Your task to perform on an android device: move a message to another label in the gmail app Image 0: 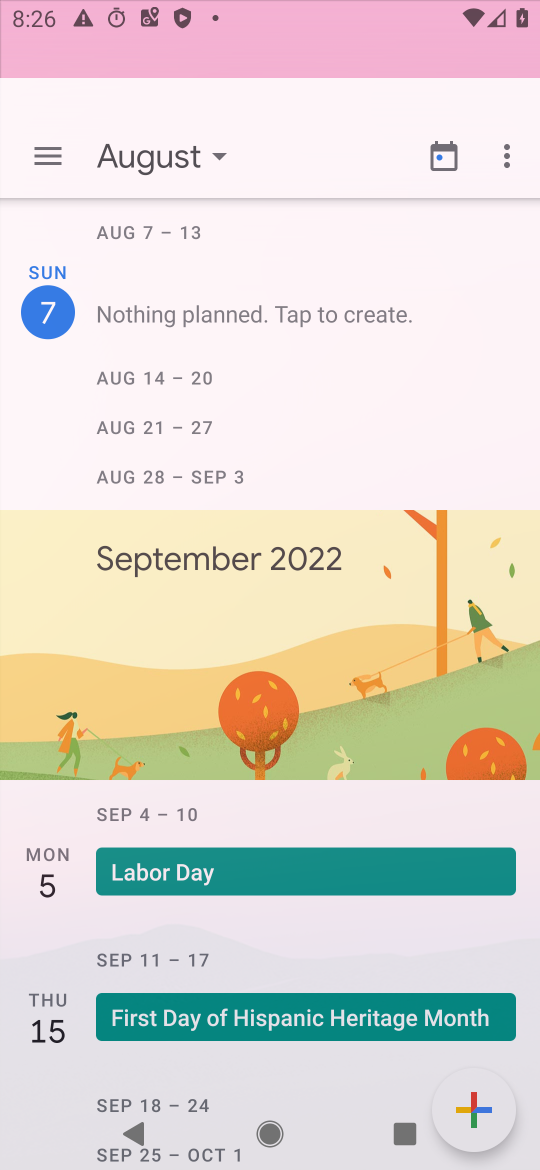
Step 0: press home button
Your task to perform on an android device: move a message to another label in the gmail app Image 1: 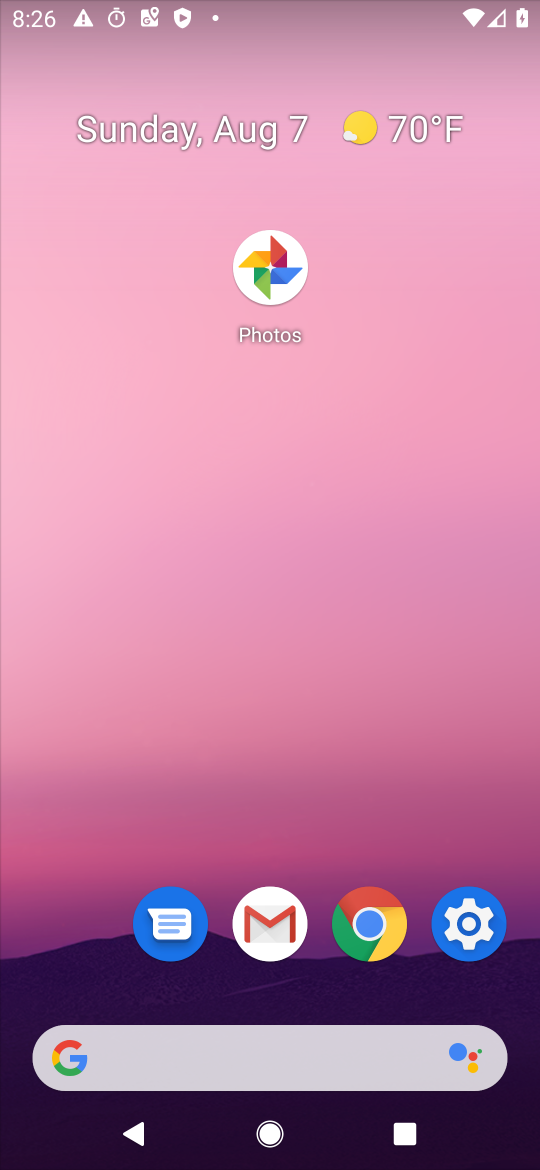
Step 1: drag from (371, 1085) to (392, 219)
Your task to perform on an android device: move a message to another label in the gmail app Image 2: 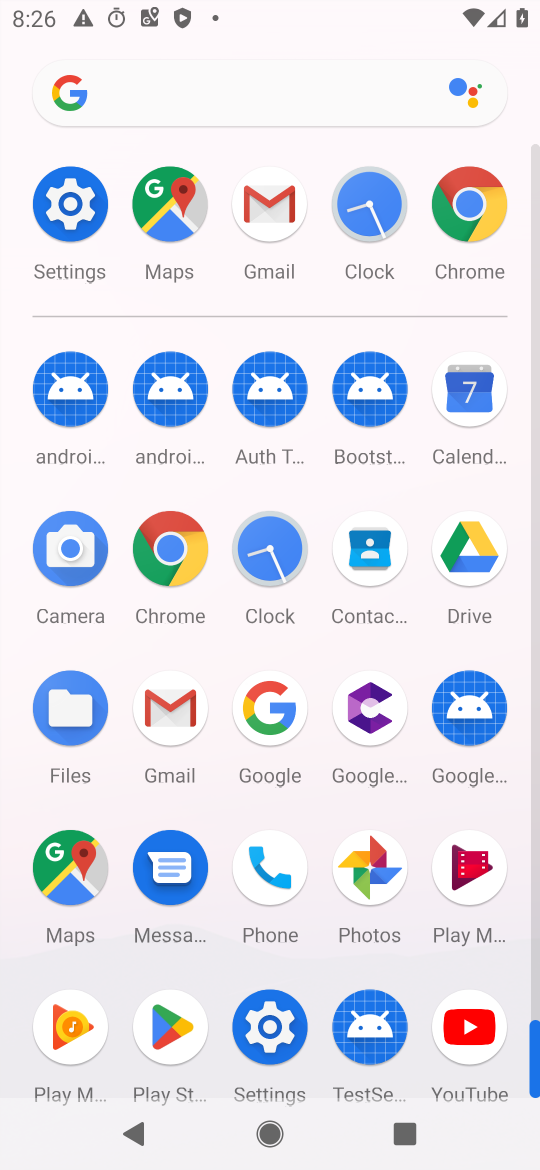
Step 2: click (264, 210)
Your task to perform on an android device: move a message to another label in the gmail app Image 3: 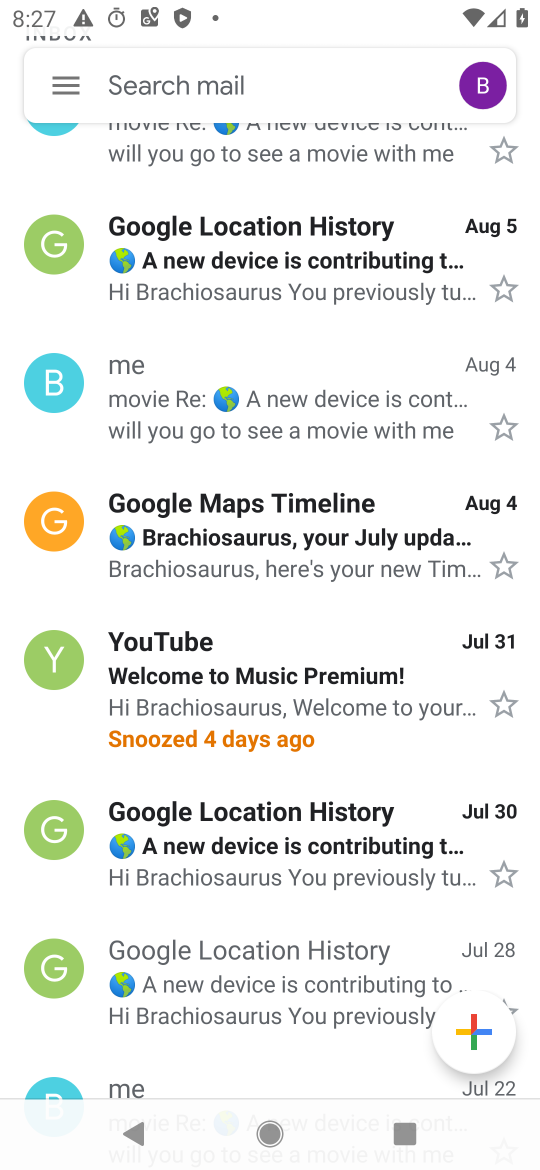
Step 3: click (69, 105)
Your task to perform on an android device: move a message to another label in the gmail app Image 4: 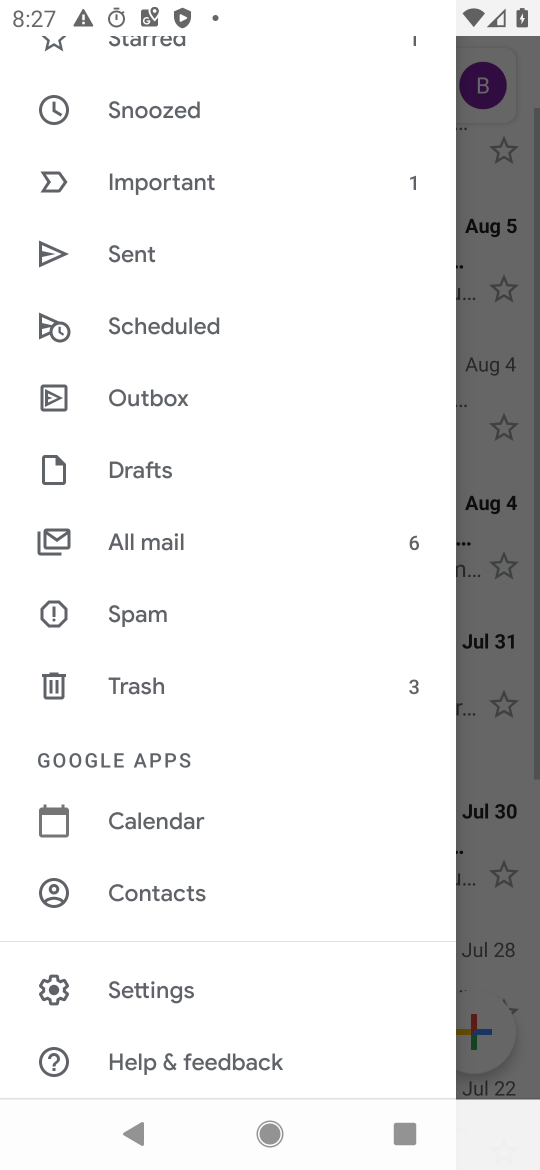
Step 4: click (158, 988)
Your task to perform on an android device: move a message to another label in the gmail app Image 5: 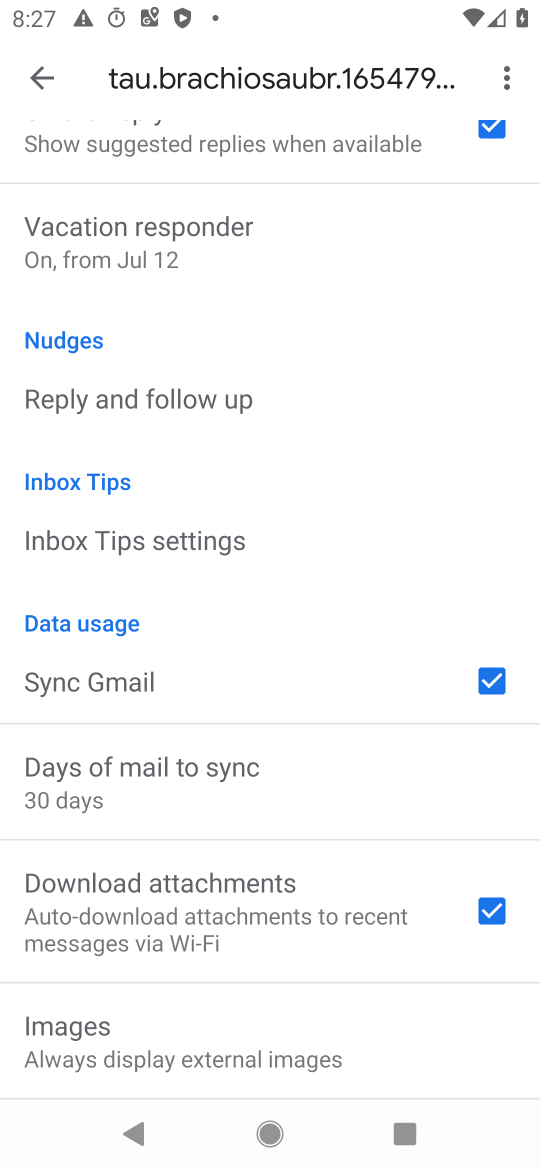
Step 5: drag from (246, 315) to (284, 886)
Your task to perform on an android device: move a message to another label in the gmail app Image 6: 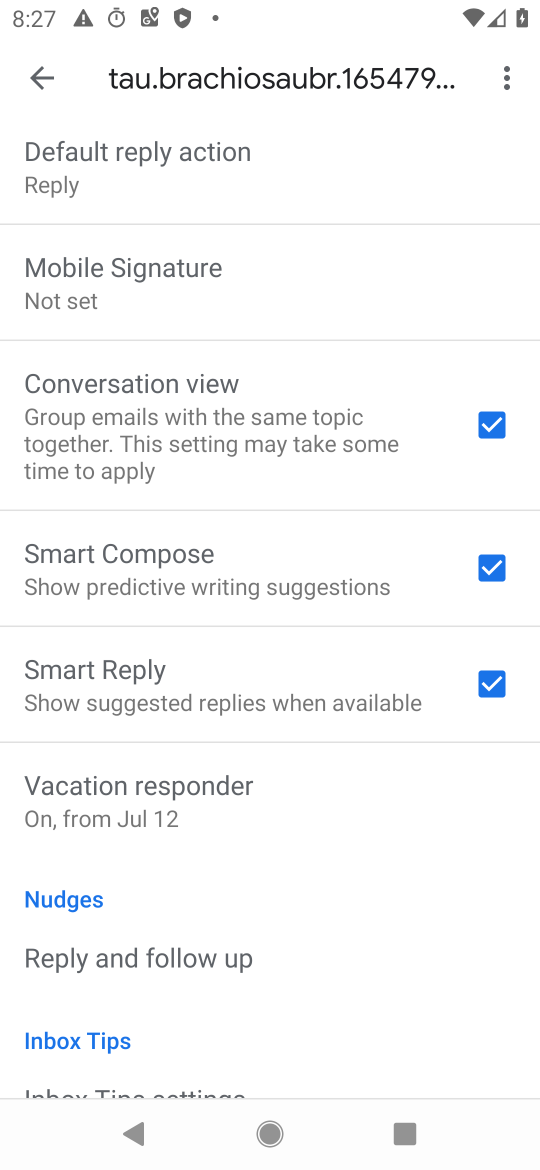
Step 6: drag from (184, 235) to (243, 665)
Your task to perform on an android device: move a message to another label in the gmail app Image 7: 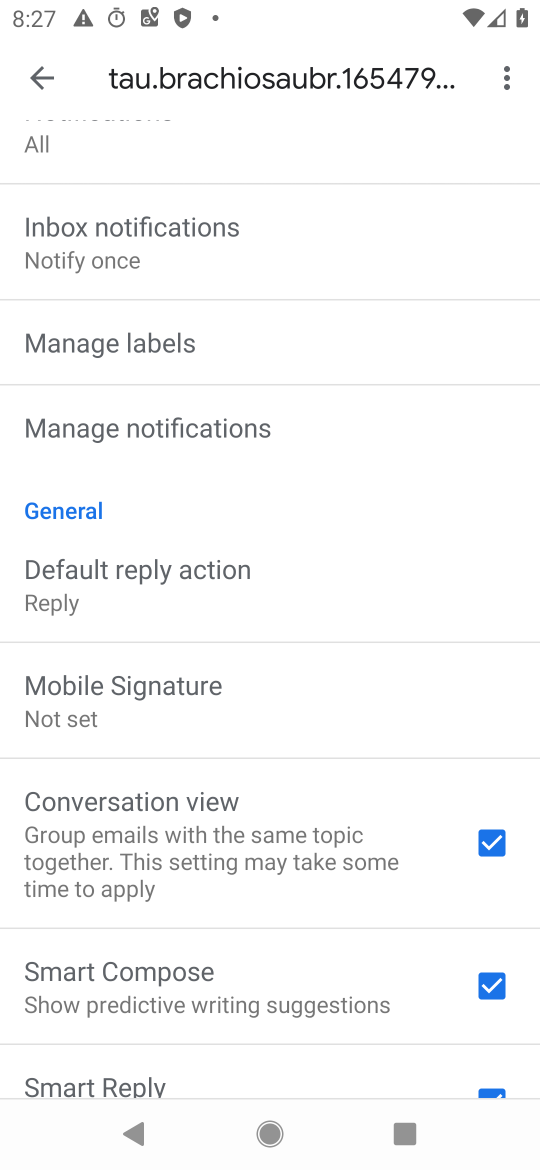
Step 7: click (165, 327)
Your task to perform on an android device: move a message to another label in the gmail app Image 8: 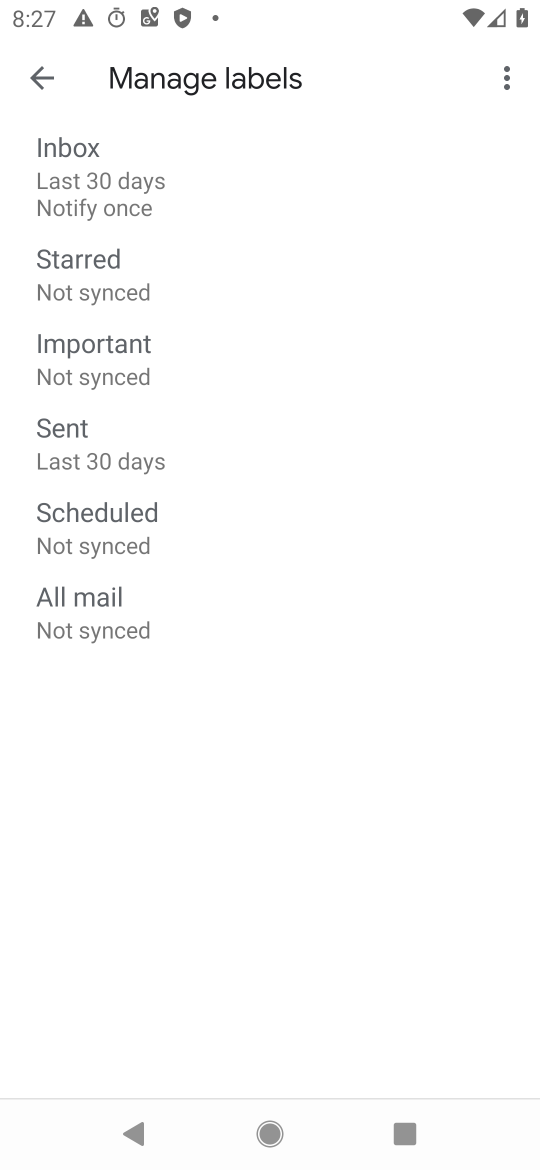
Step 8: click (165, 327)
Your task to perform on an android device: move a message to another label in the gmail app Image 9: 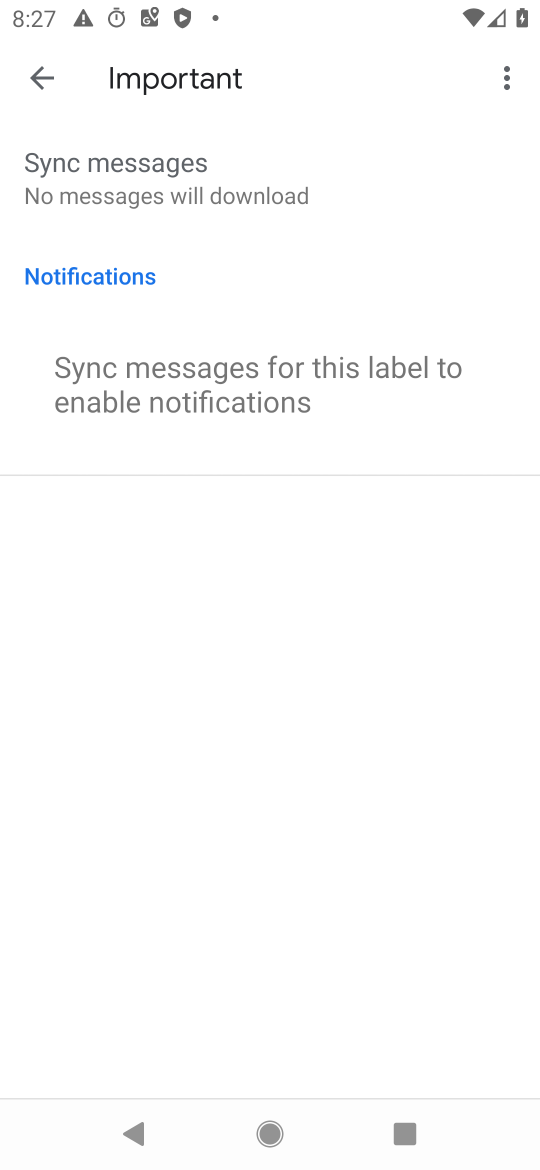
Step 9: task complete